Your task to perform on an android device: stop showing notifications on the lock screen Image 0: 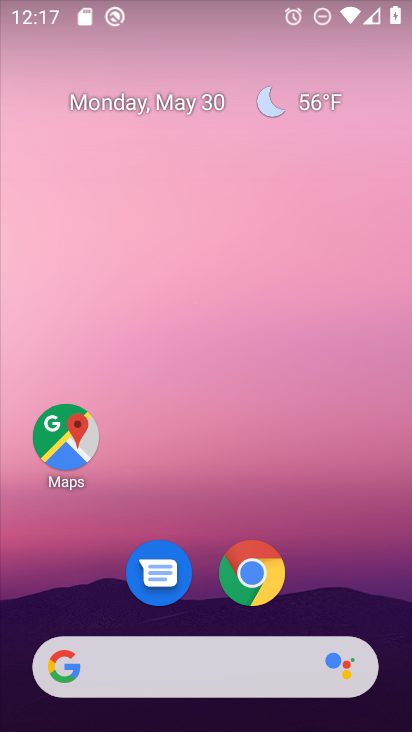
Step 0: drag from (274, 642) to (316, 48)
Your task to perform on an android device: stop showing notifications on the lock screen Image 1: 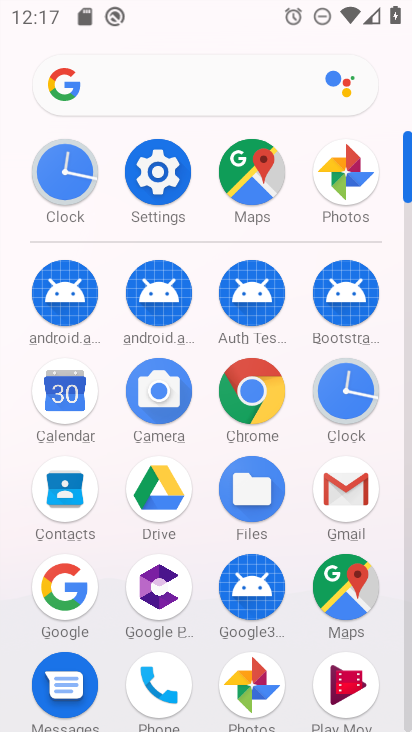
Step 1: click (156, 179)
Your task to perform on an android device: stop showing notifications on the lock screen Image 2: 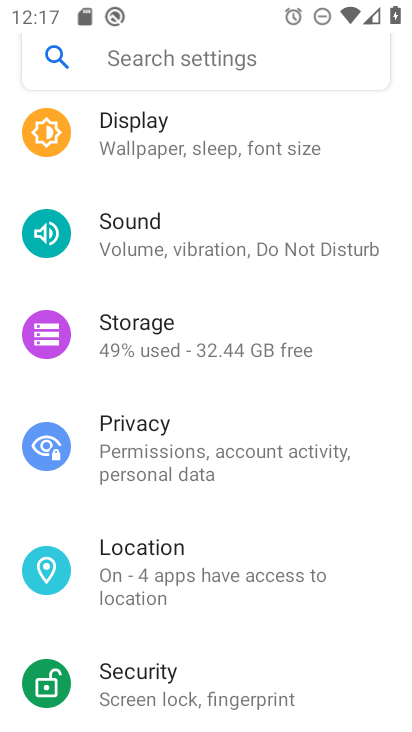
Step 2: drag from (299, 187) to (209, 696)
Your task to perform on an android device: stop showing notifications on the lock screen Image 3: 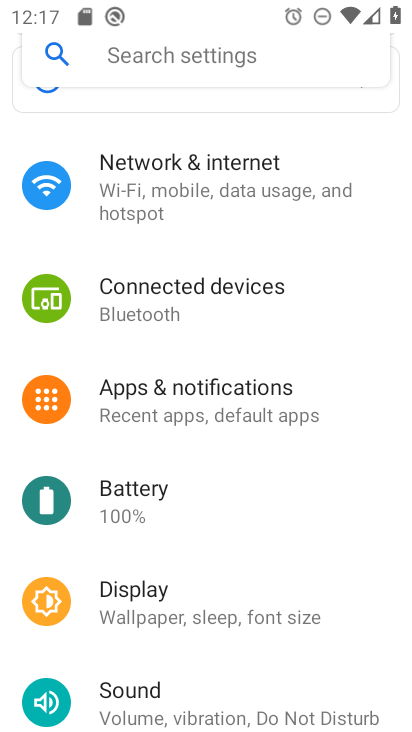
Step 3: click (249, 433)
Your task to perform on an android device: stop showing notifications on the lock screen Image 4: 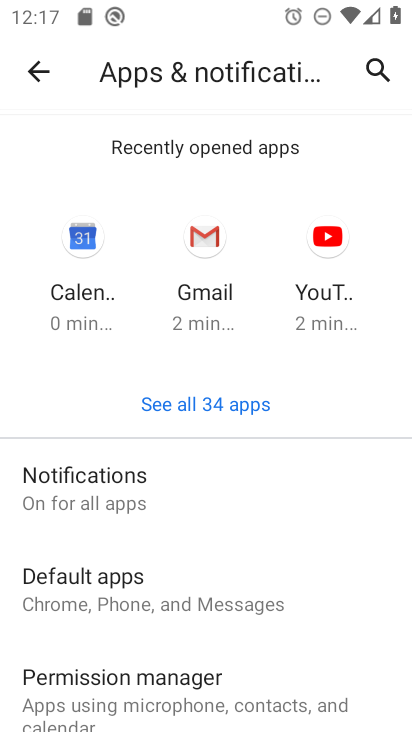
Step 4: drag from (198, 669) to (257, 449)
Your task to perform on an android device: stop showing notifications on the lock screen Image 5: 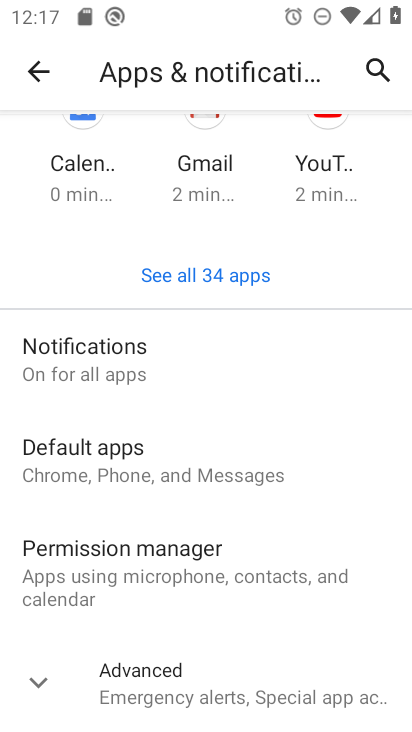
Step 5: click (166, 364)
Your task to perform on an android device: stop showing notifications on the lock screen Image 6: 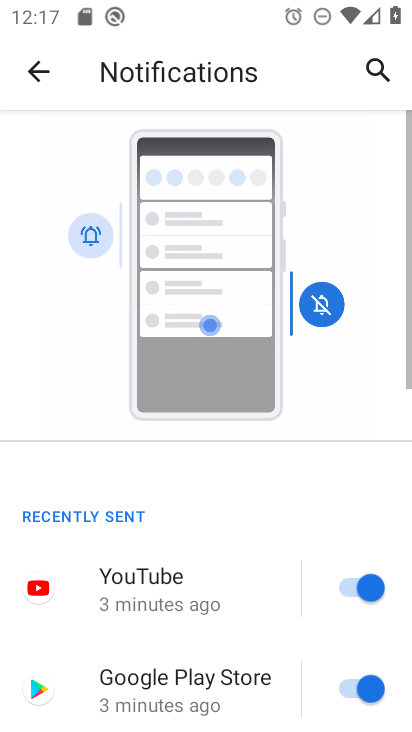
Step 6: drag from (226, 575) to (374, 35)
Your task to perform on an android device: stop showing notifications on the lock screen Image 7: 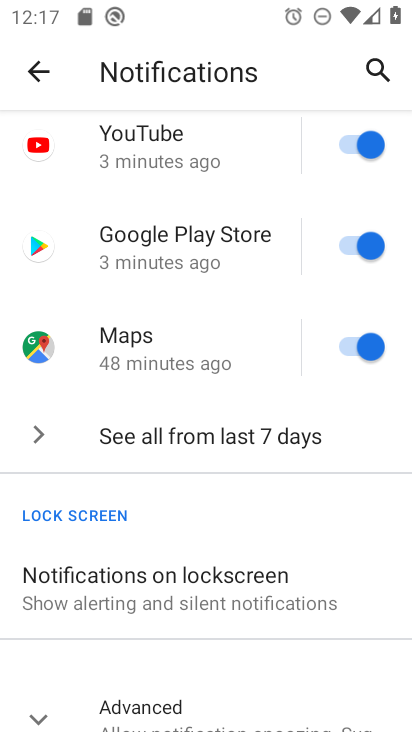
Step 7: click (223, 585)
Your task to perform on an android device: stop showing notifications on the lock screen Image 8: 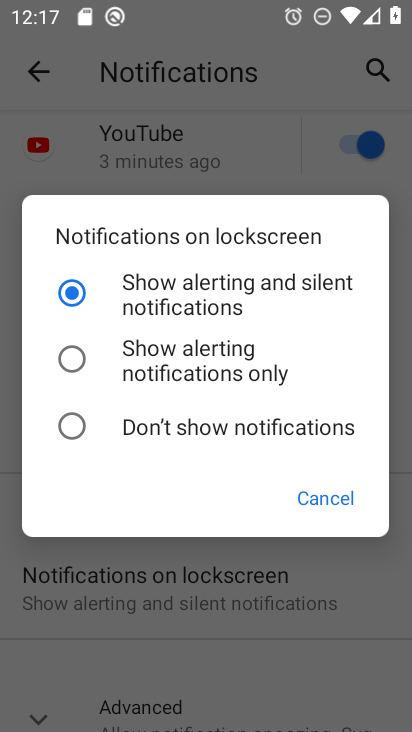
Step 8: click (70, 432)
Your task to perform on an android device: stop showing notifications on the lock screen Image 9: 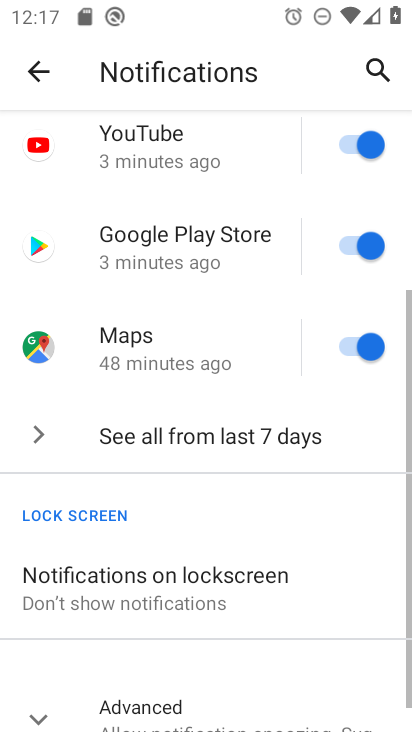
Step 9: task complete